Your task to perform on an android device: set an alarm Image 0: 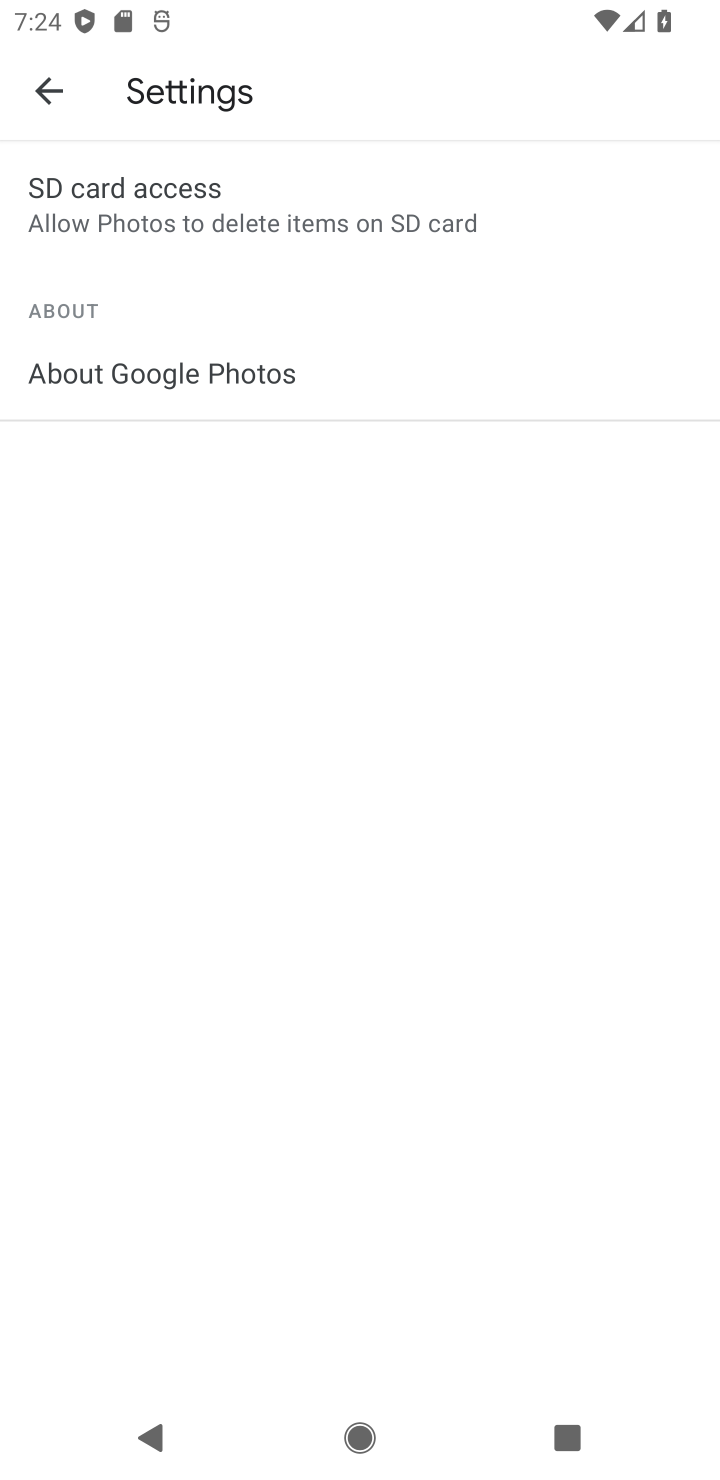
Step 0: press home button
Your task to perform on an android device: set an alarm Image 1: 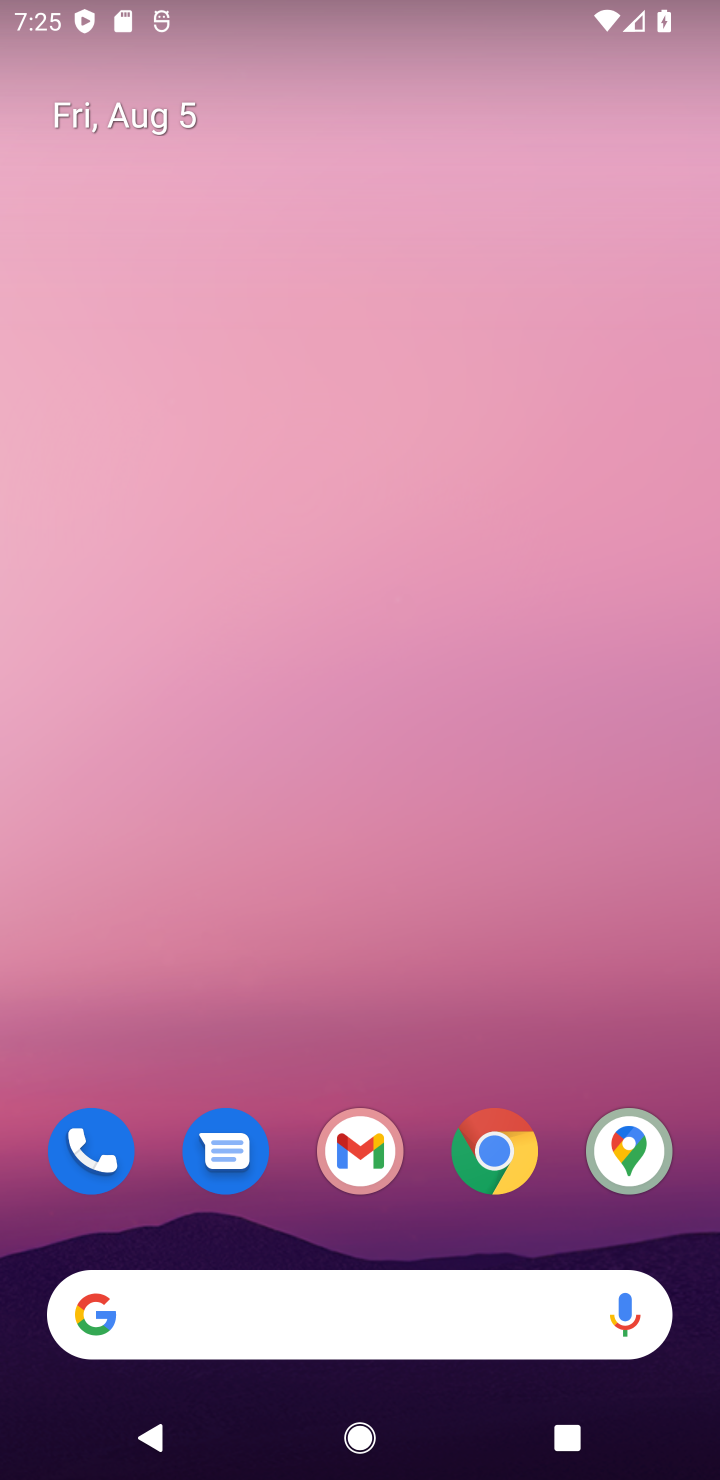
Step 1: drag from (384, 1219) to (689, 964)
Your task to perform on an android device: set an alarm Image 2: 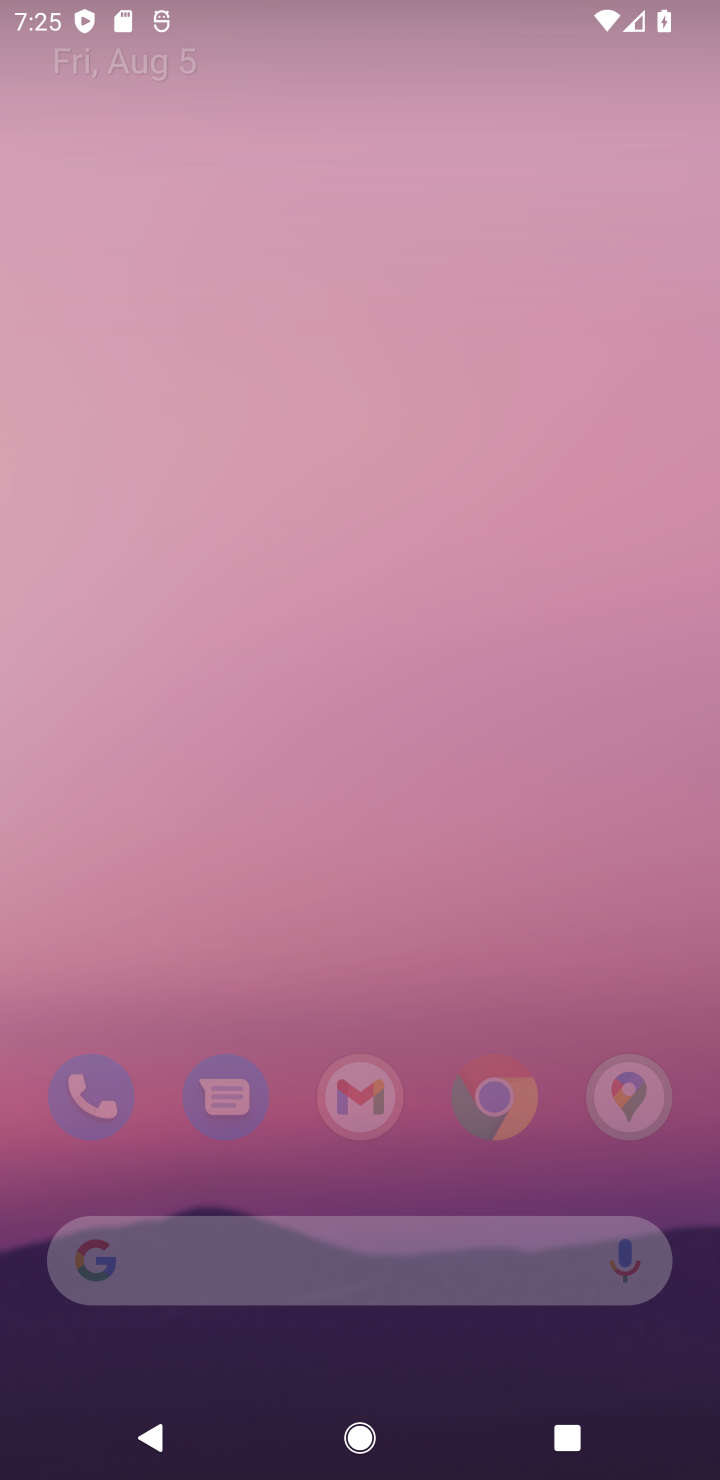
Step 2: click (483, 558)
Your task to perform on an android device: set an alarm Image 3: 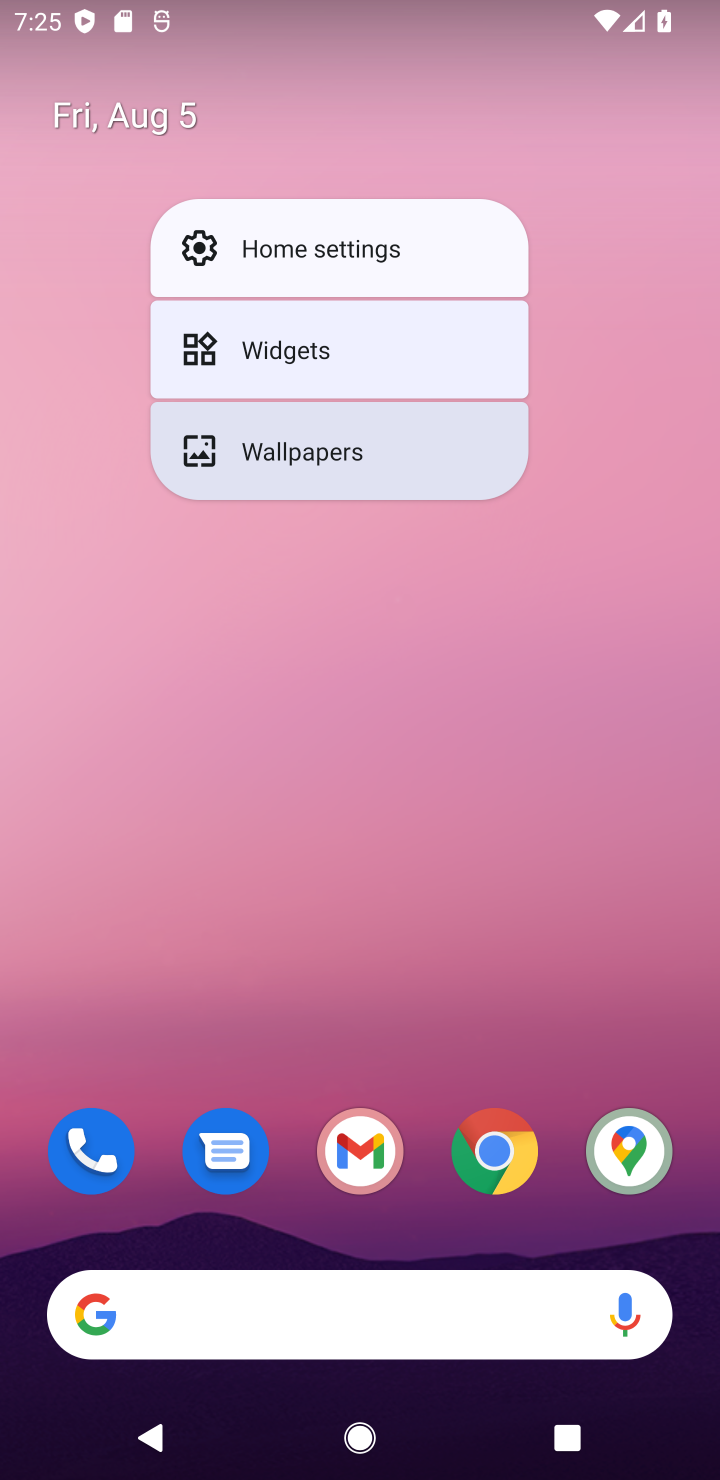
Step 3: drag from (406, 1197) to (410, 45)
Your task to perform on an android device: set an alarm Image 4: 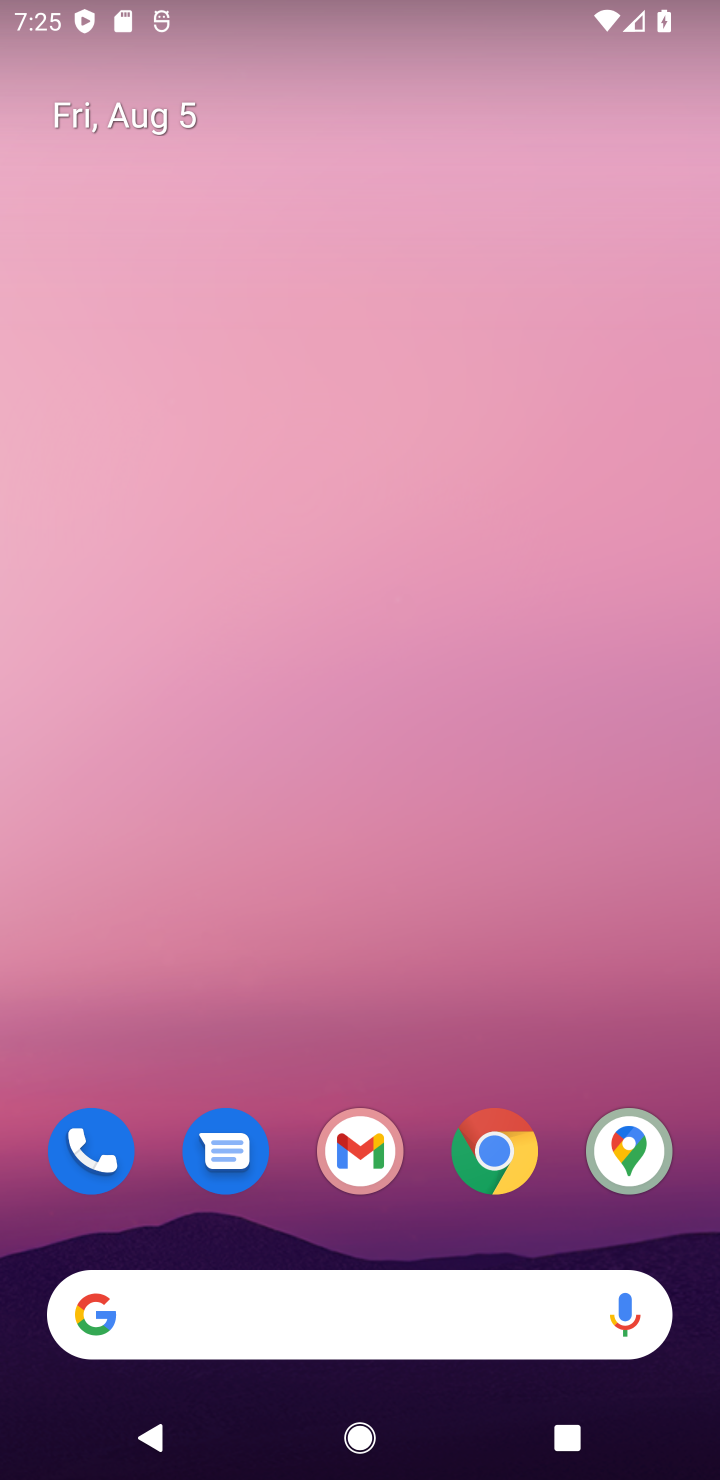
Step 4: drag from (455, 1247) to (455, 158)
Your task to perform on an android device: set an alarm Image 5: 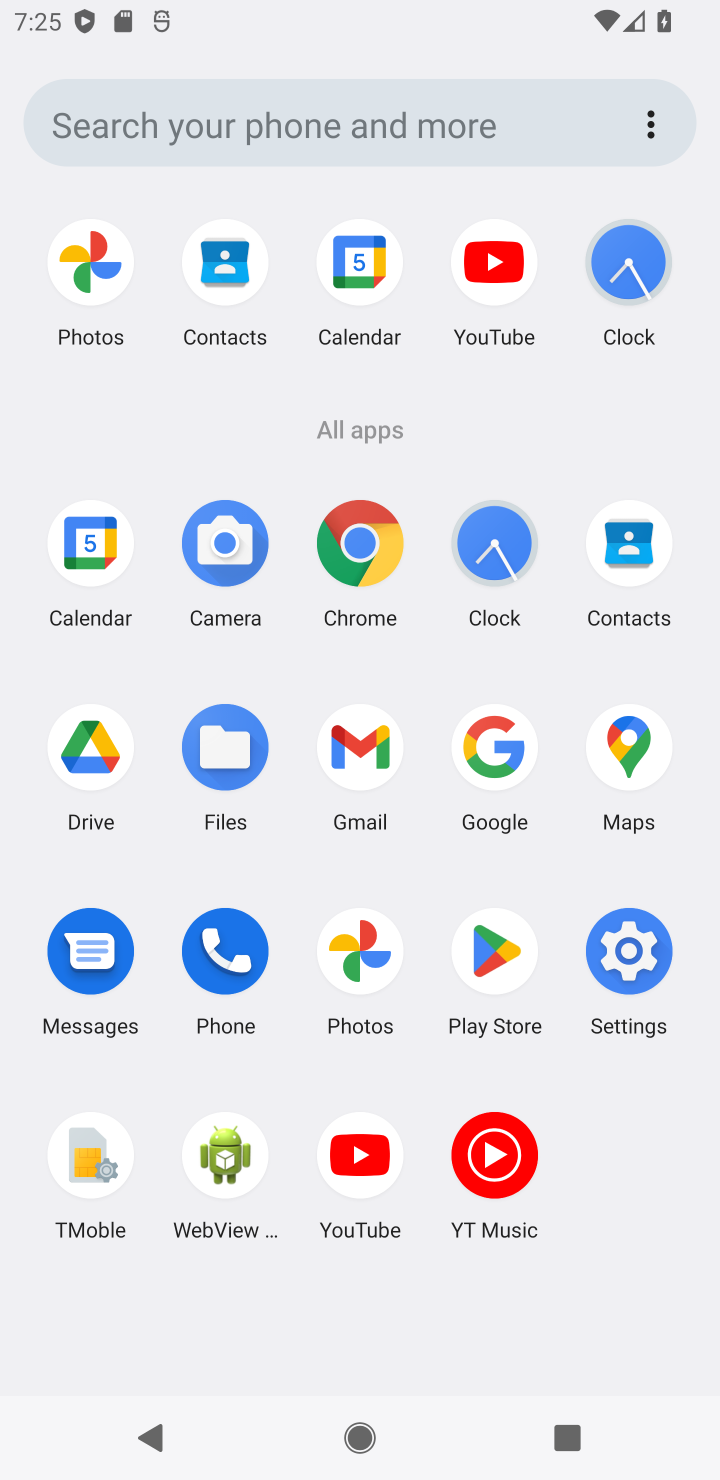
Step 5: click (502, 583)
Your task to perform on an android device: set an alarm Image 6: 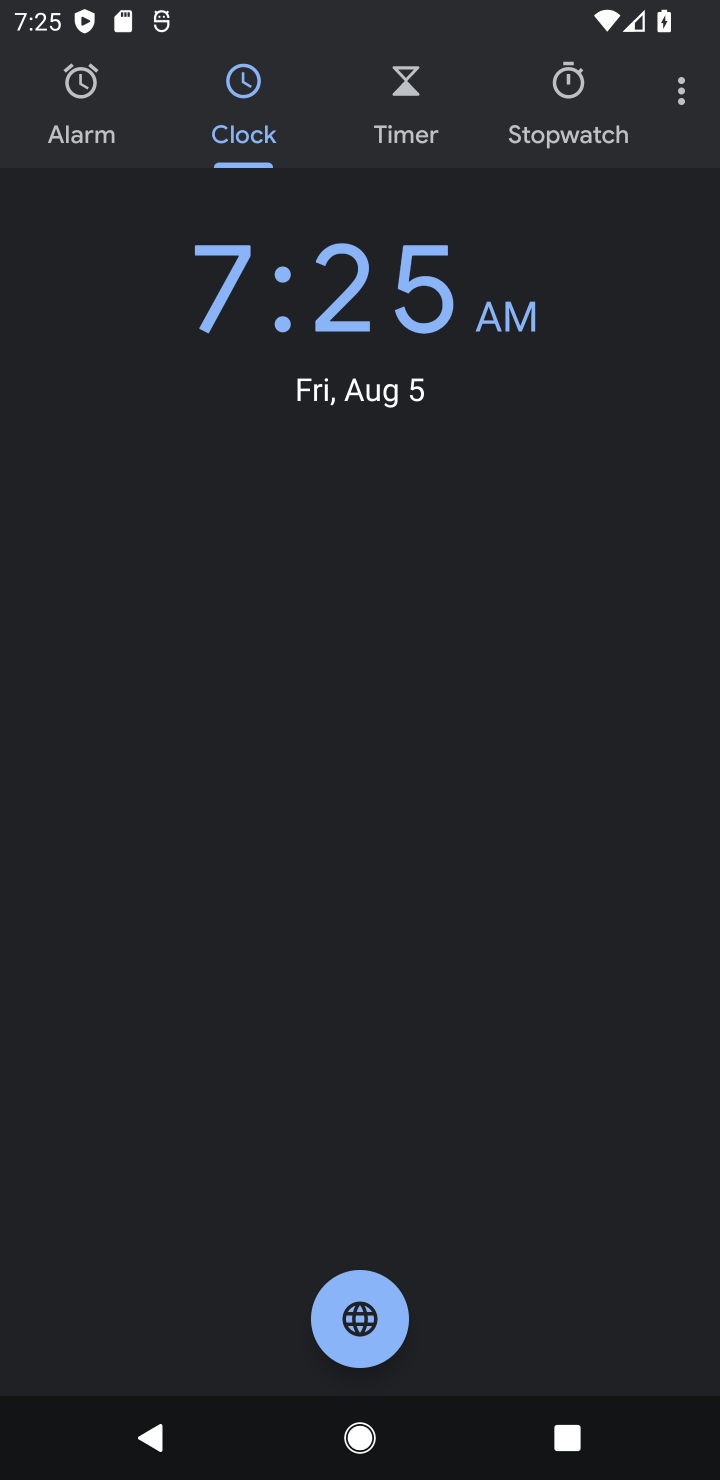
Step 6: click (124, 125)
Your task to perform on an android device: set an alarm Image 7: 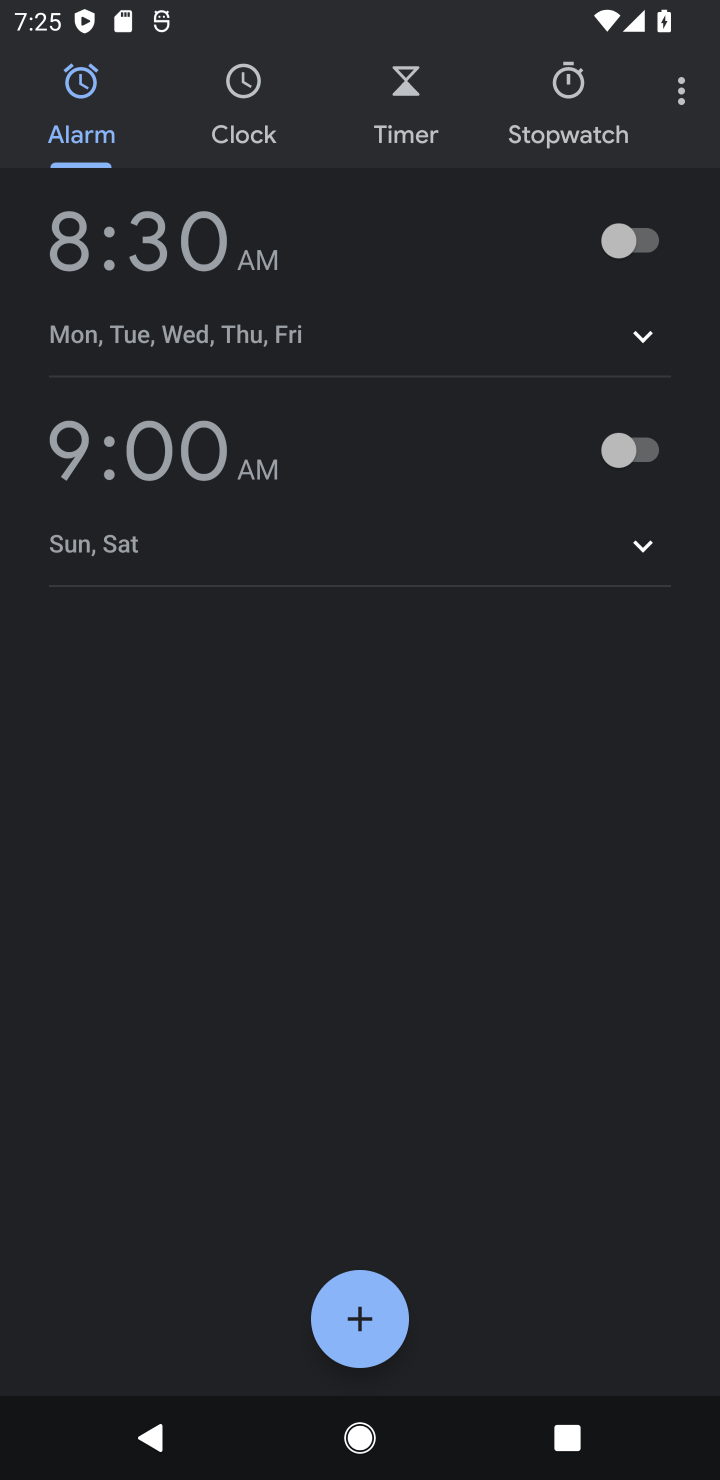
Step 7: click (370, 1298)
Your task to perform on an android device: set an alarm Image 8: 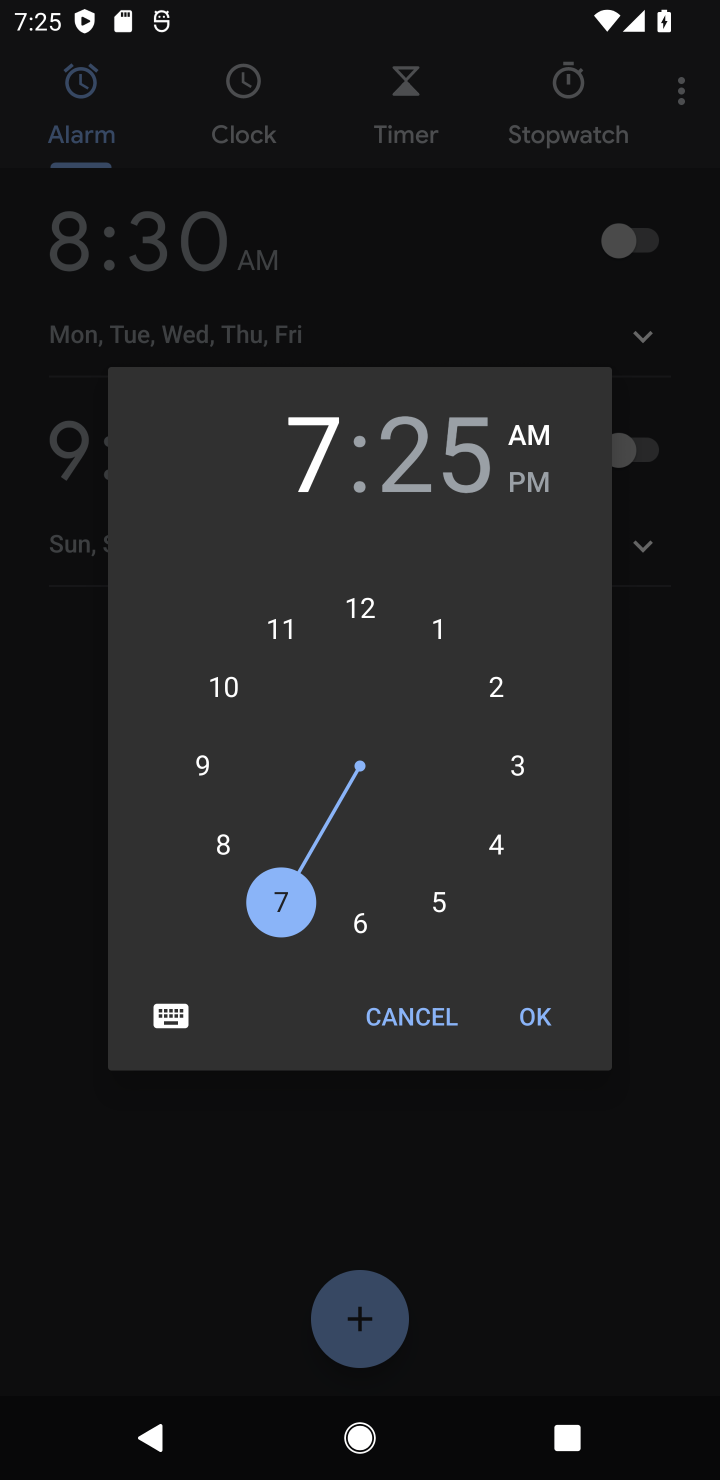
Step 8: click (528, 1016)
Your task to perform on an android device: set an alarm Image 9: 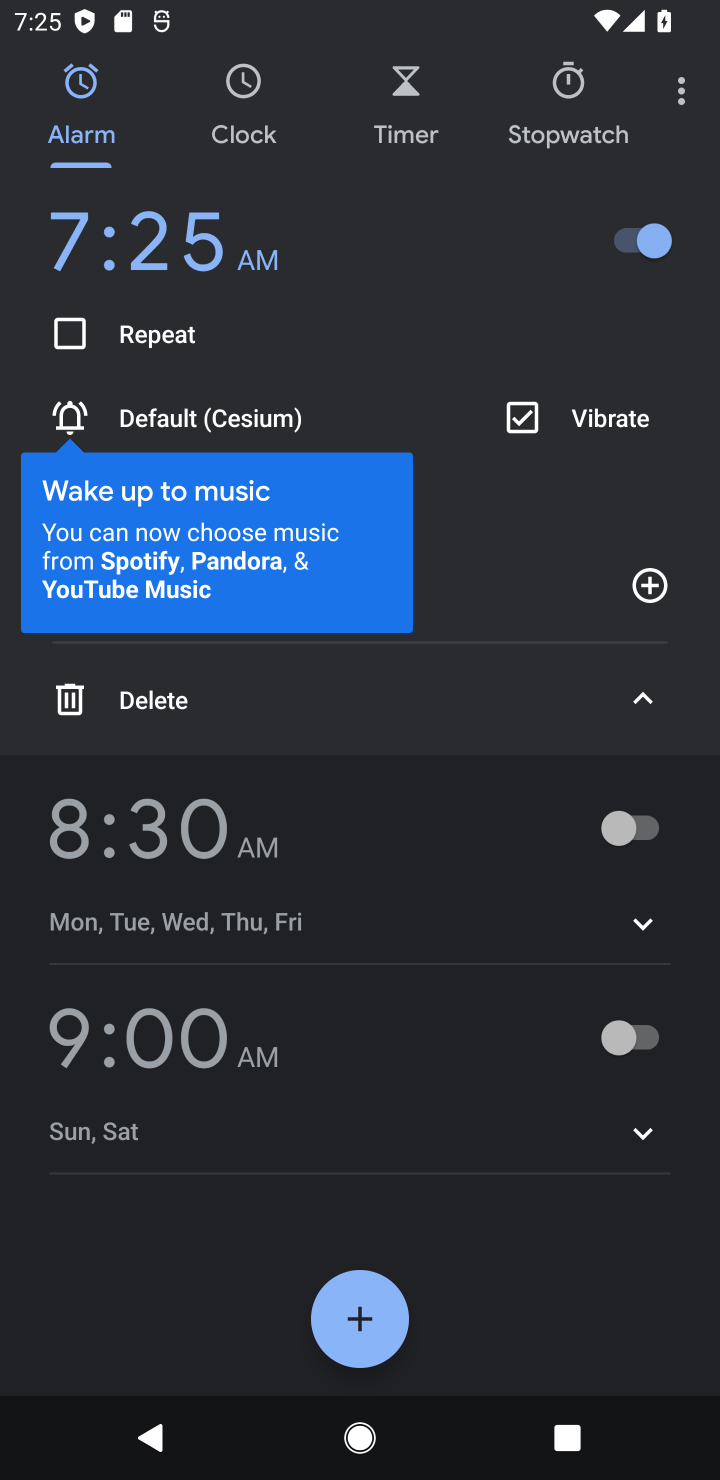
Step 9: task complete